Your task to perform on an android device: turn off sleep mode Image 0: 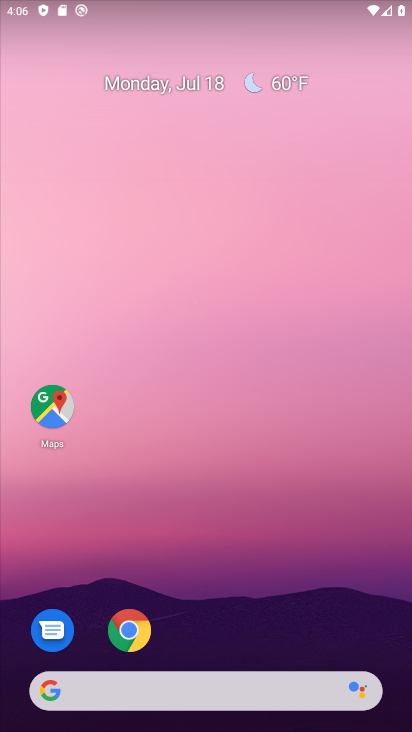
Step 0: drag from (239, 524) to (311, 140)
Your task to perform on an android device: turn off sleep mode Image 1: 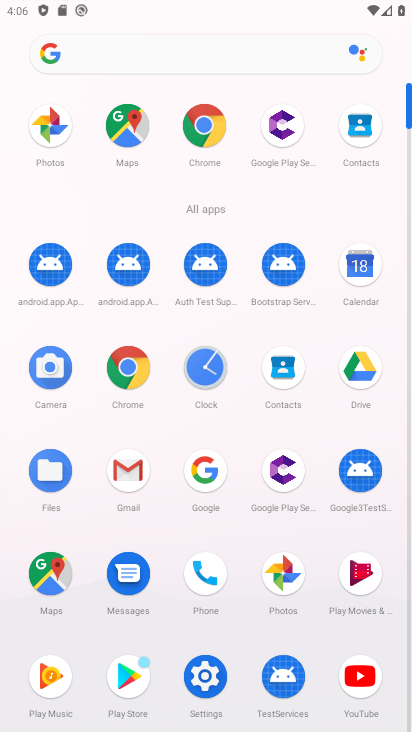
Step 1: click (208, 683)
Your task to perform on an android device: turn off sleep mode Image 2: 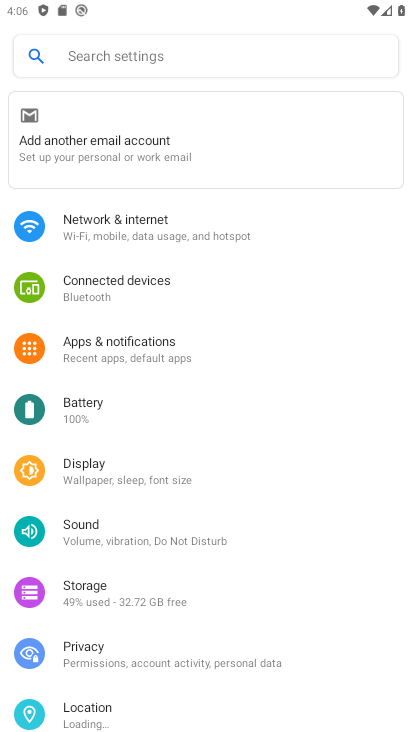
Step 2: click (141, 489)
Your task to perform on an android device: turn off sleep mode Image 3: 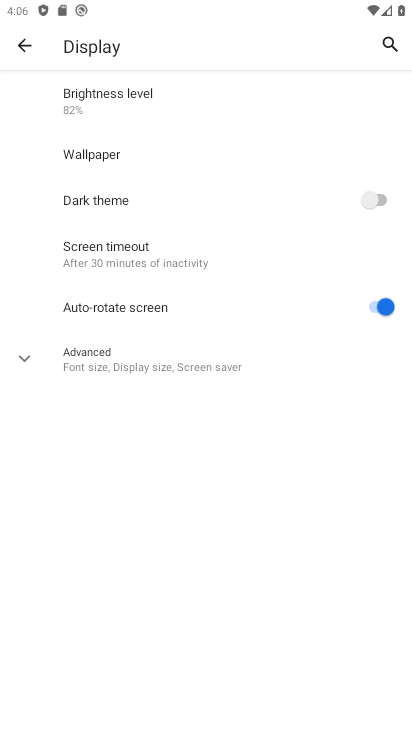
Step 3: click (256, 368)
Your task to perform on an android device: turn off sleep mode Image 4: 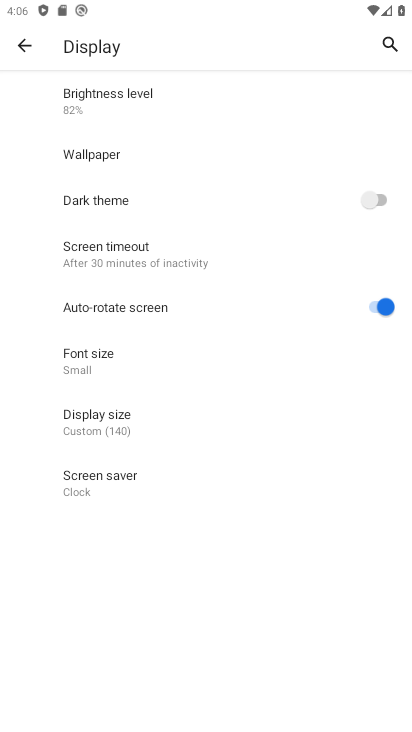
Step 4: task complete